Your task to perform on an android device: Search for macbook pro 15 inch on ebay, select the first entry, add it to the cart, then select checkout. Image 0: 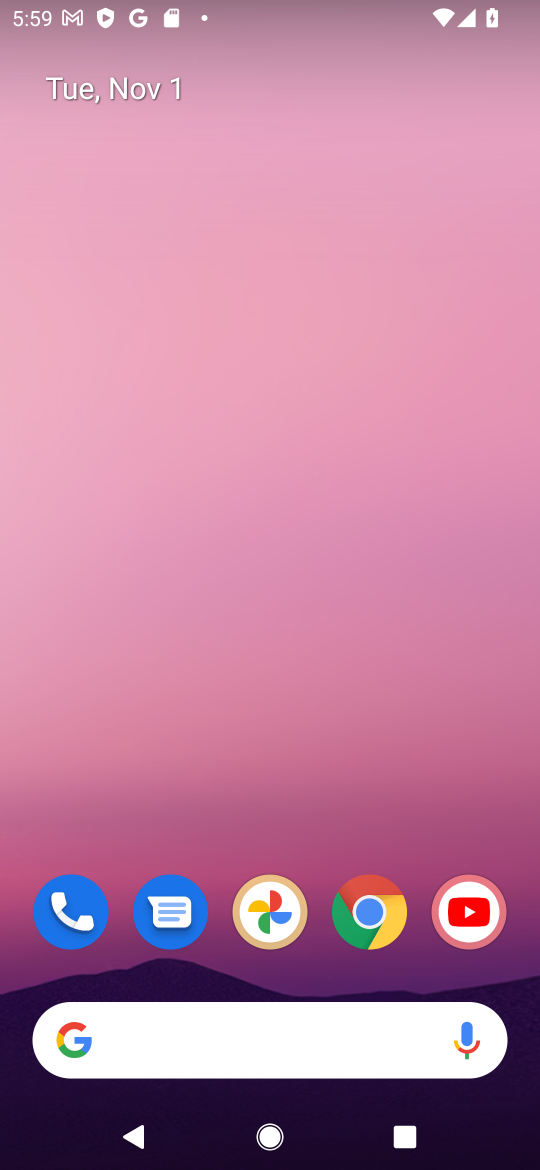
Step 0: click (68, 1033)
Your task to perform on an android device: Search for macbook pro 15 inch on ebay, select the first entry, add it to the cart, then select checkout. Image 1: 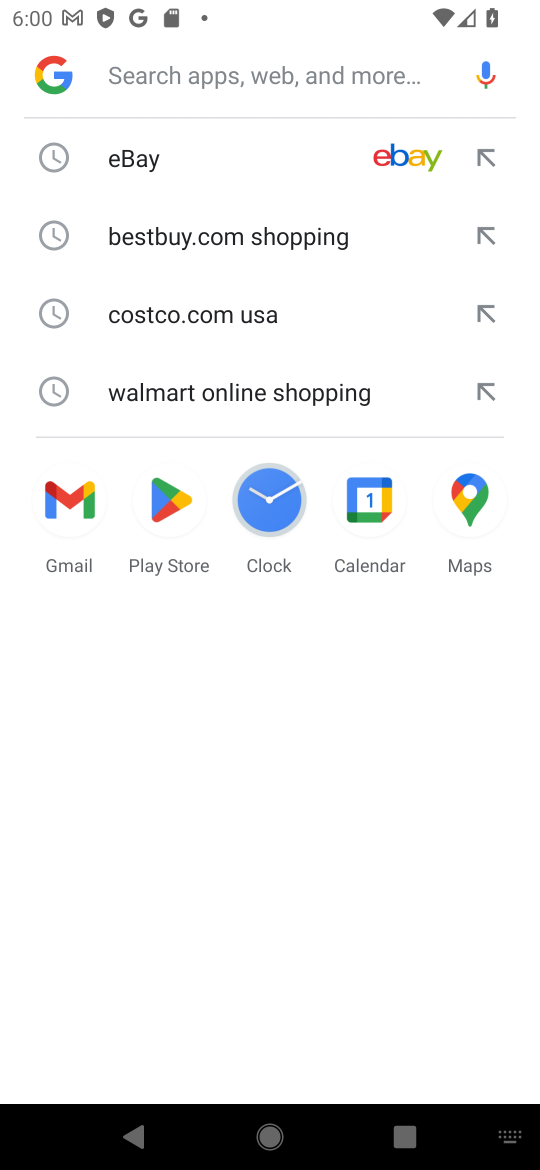
Step 1: click (135, 149)
Your task to perform on an android device: Search for macbook pro 15 inch on ebay, select the first entry, add it to the cart, then select checkout. Image 2: 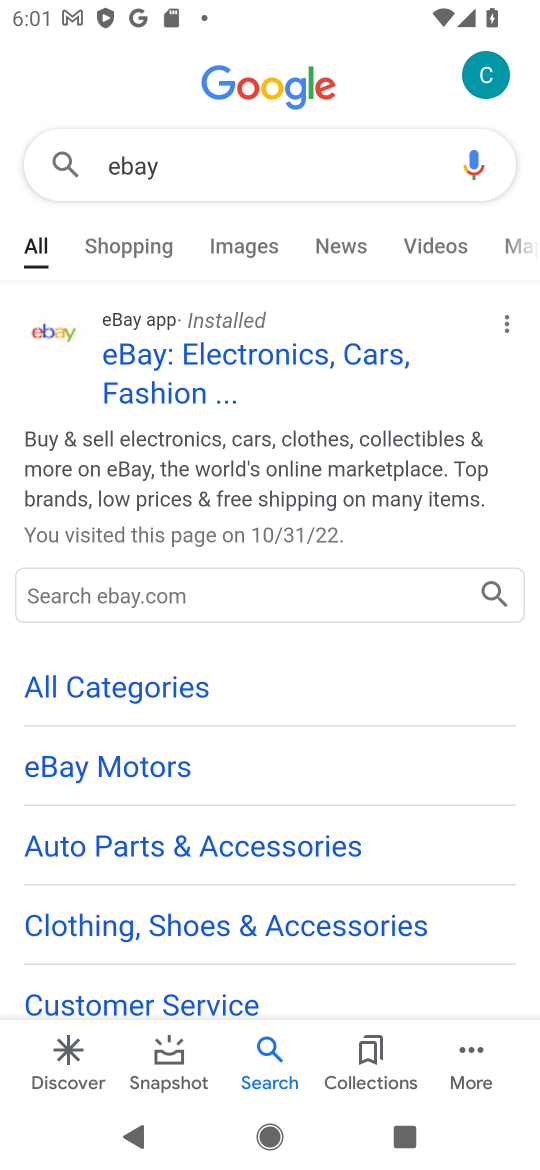
Step 2: click (189, 356)
Your task to perform on an android device: Search for macbook pro 15 inch on ebay, select the first entry, add it to the cart, then select checkout. Image 3: 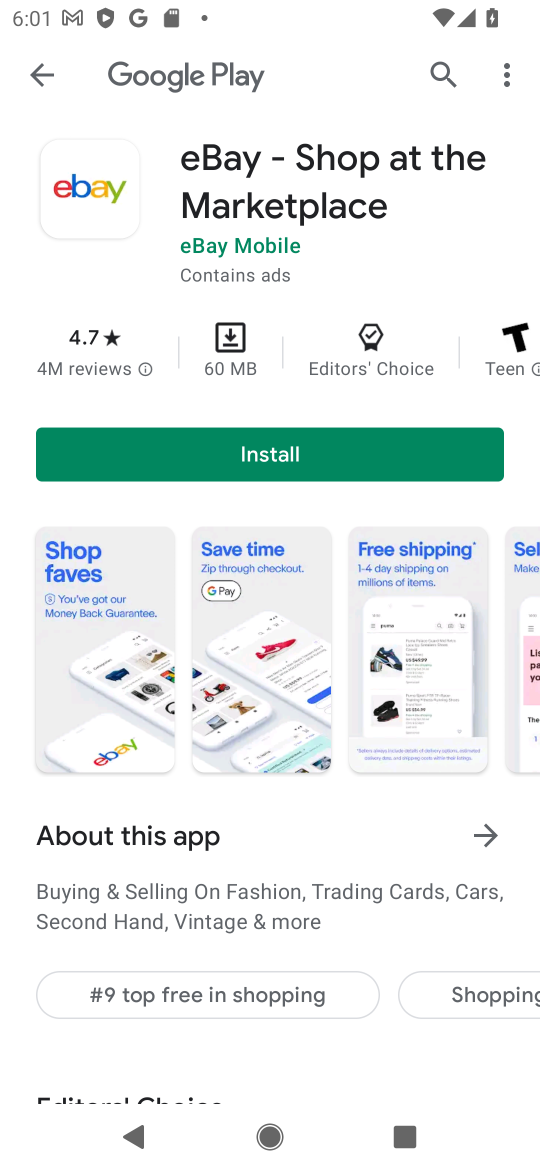
Step 3: click (382, 454)
Your task to perform on an android device: Search for macbook pro 15 inch on ebay, select the first entry, add it to the cart, then select checkout. Image 4: 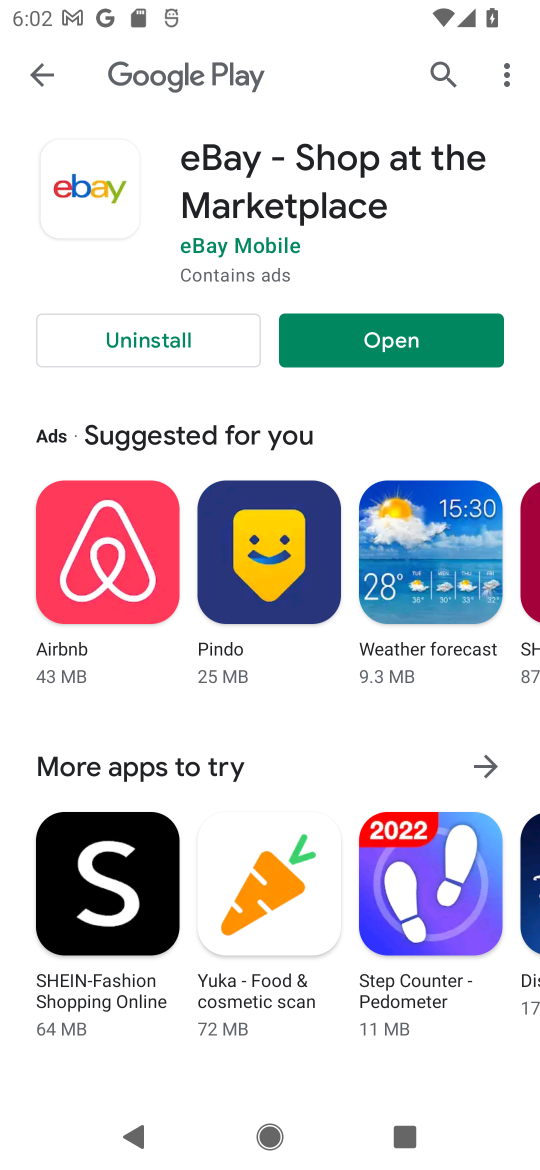
Step 4: click (350, 363)
Your task to perform on an android device: Search for macbook pro 15 inch on ebay, select the first entry, add it to the cart, then select checkout. Image 5: 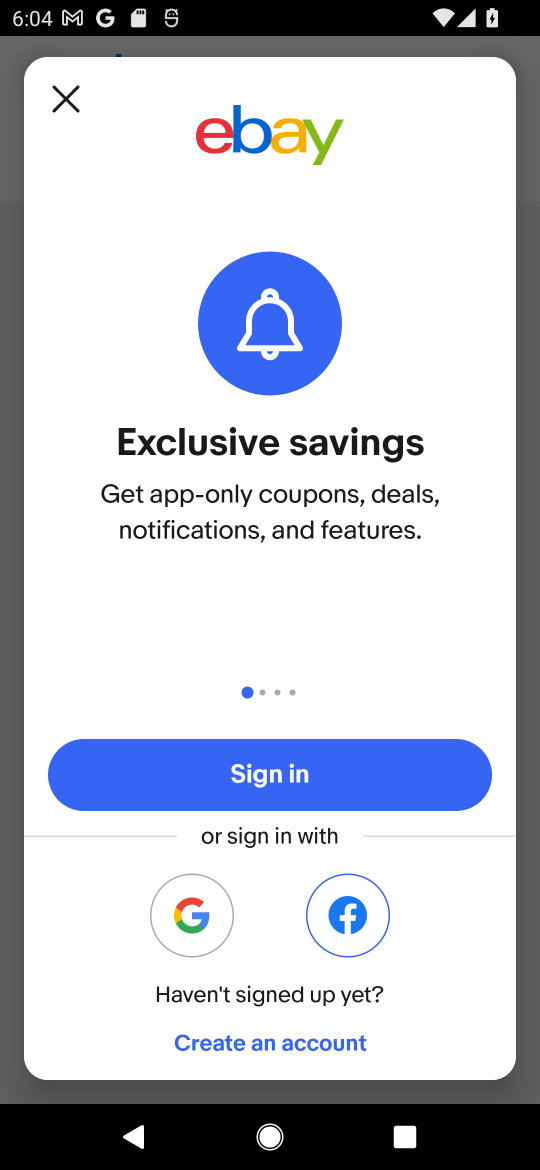
Step 5: click (68, 100)
Your task to perform on an android device: Search for macbook pro 15 inch on ebay, select the first entry, add it to the cart, then select checkout. Image 6: 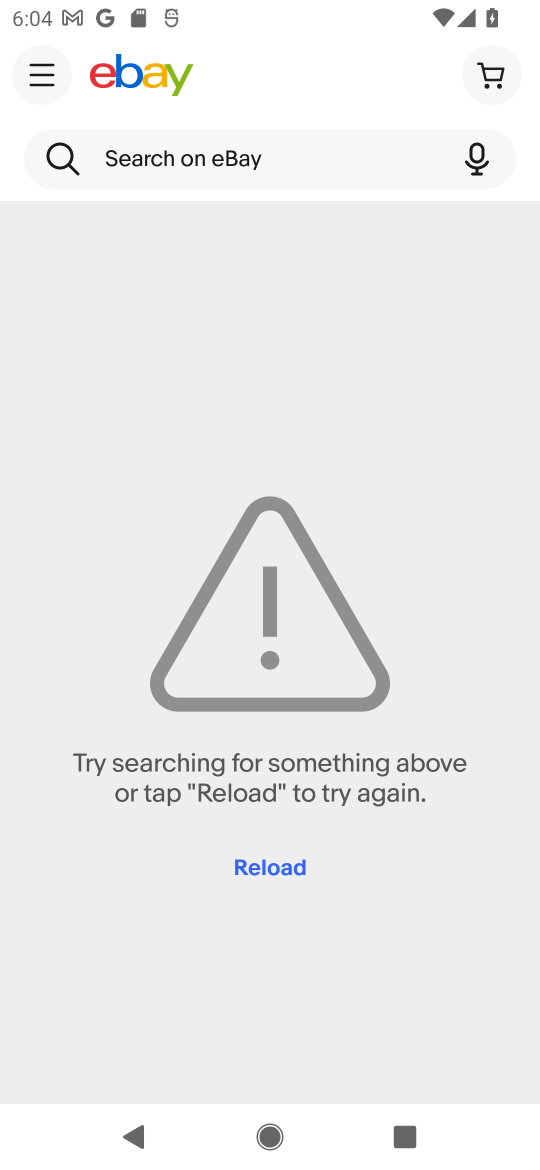
Step 6: click (235, 157)
Your task to perform on an android device: Search for macbook pro 15 inch on ebay, select the first entry, add it to the cart, then select checkout. Image 7: 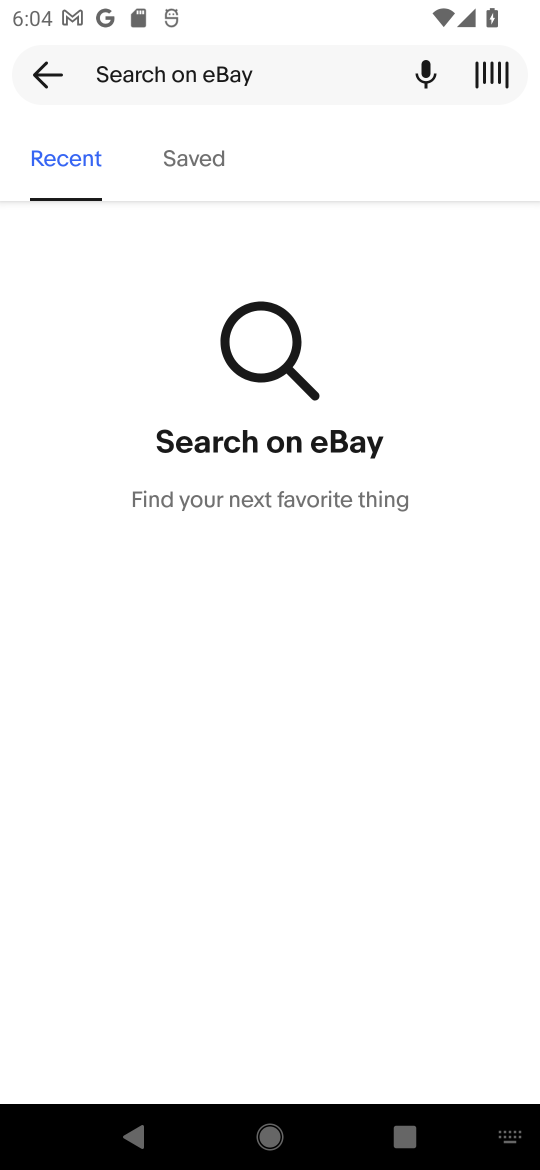
Step 7: type "mabbook pro 15 inch"
Your task to perform on an android device: Search for macbook pro 15 inch on ebay, select the first entry, add it to the cart, then select checkout. Image 8: 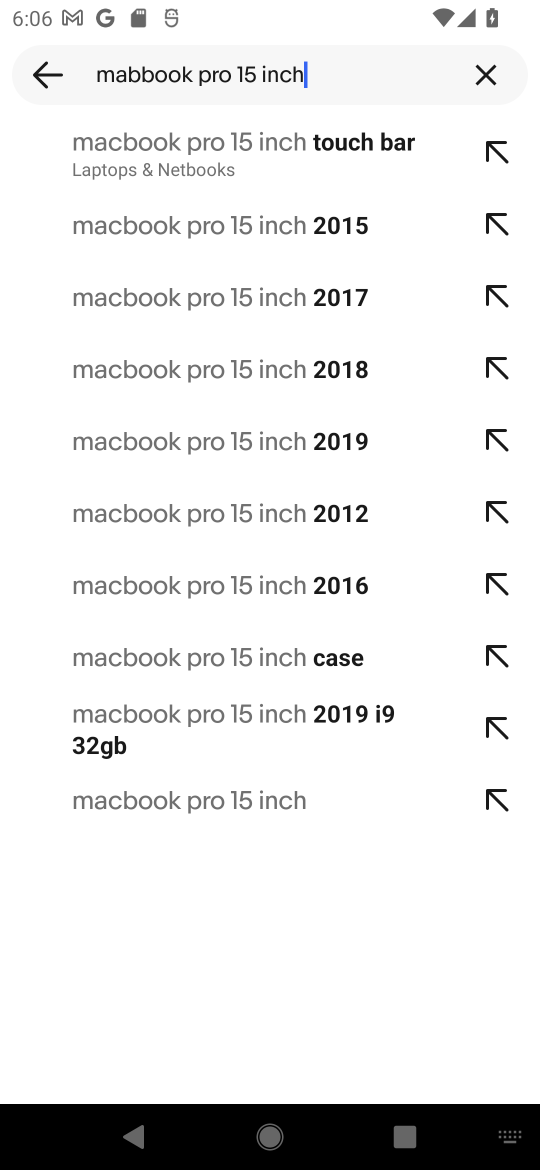
Step 8: click (176, 157)
Your task to perform on an android device: Search for macbook pro 15 inch on ebay, select the first entry, add it to the cart, then select checkout. Image 9: 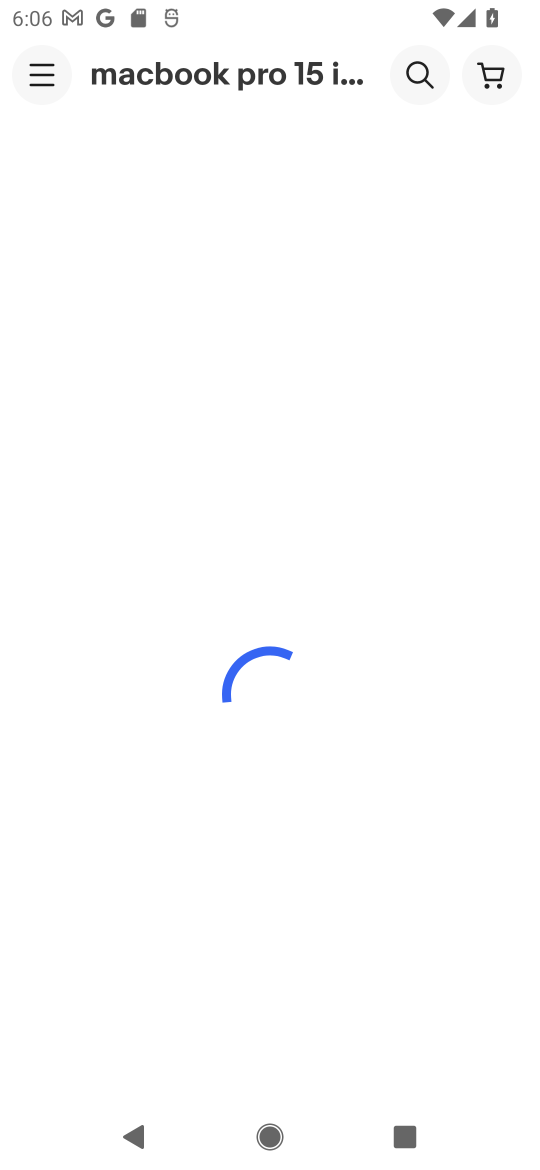
Step 9: task complete